Your task to perform on an android device: toggle notification dots Image 0: 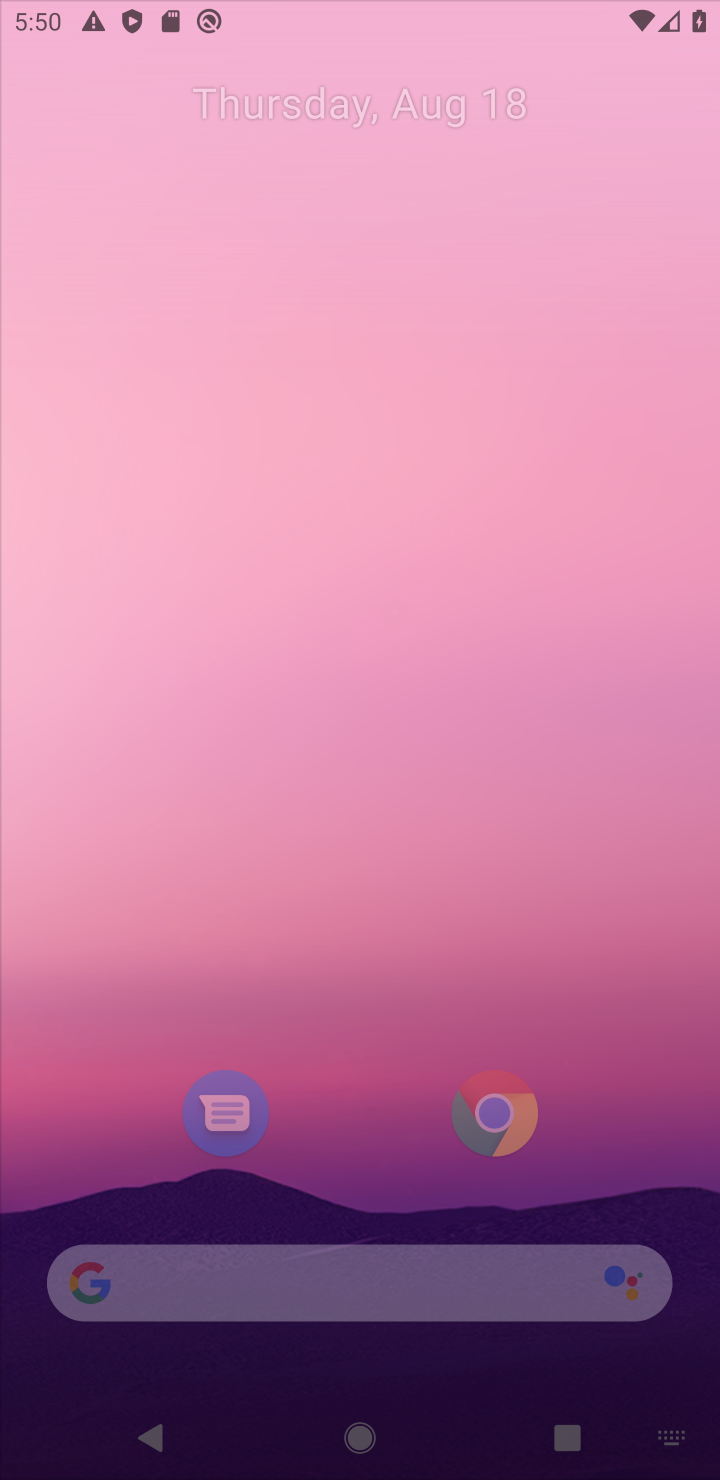
Step 0: press home button
Your task to perform on an android device: toggle notification dots Image 1: 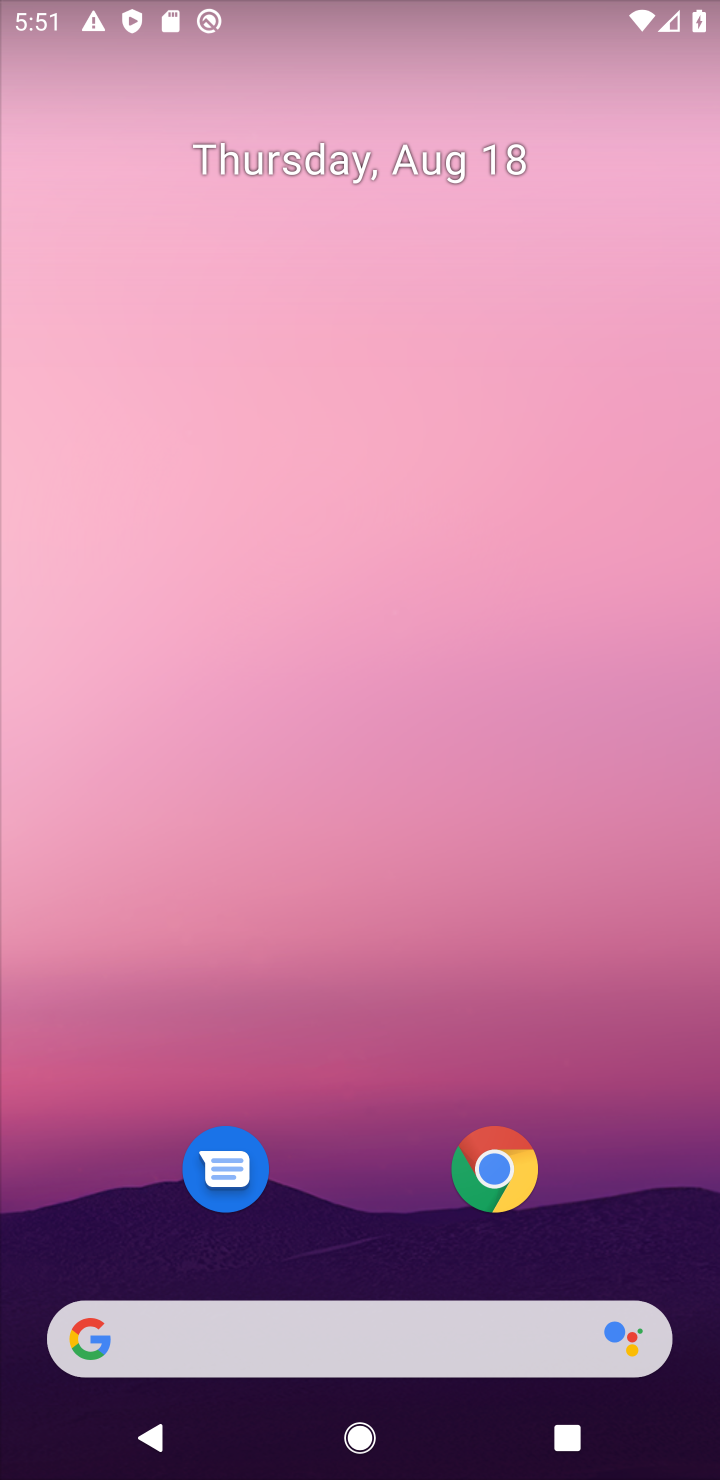
Step 1: drag from (360, 1264) to (343, 167)
Your task to perform on an android device: toggle notification dots Image 2: 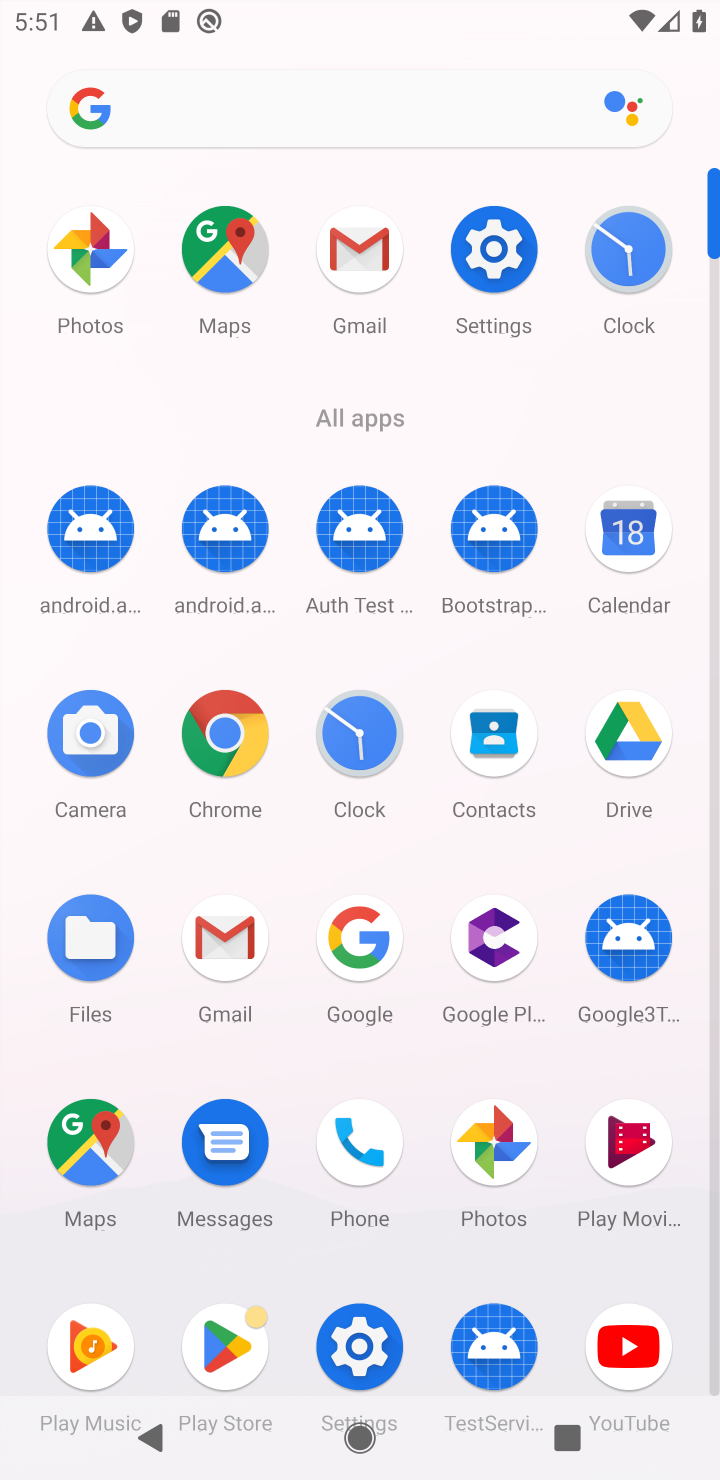
Step 2: click (494, 270)
Your task to perform on an android device: toggle notification dots Image 3: 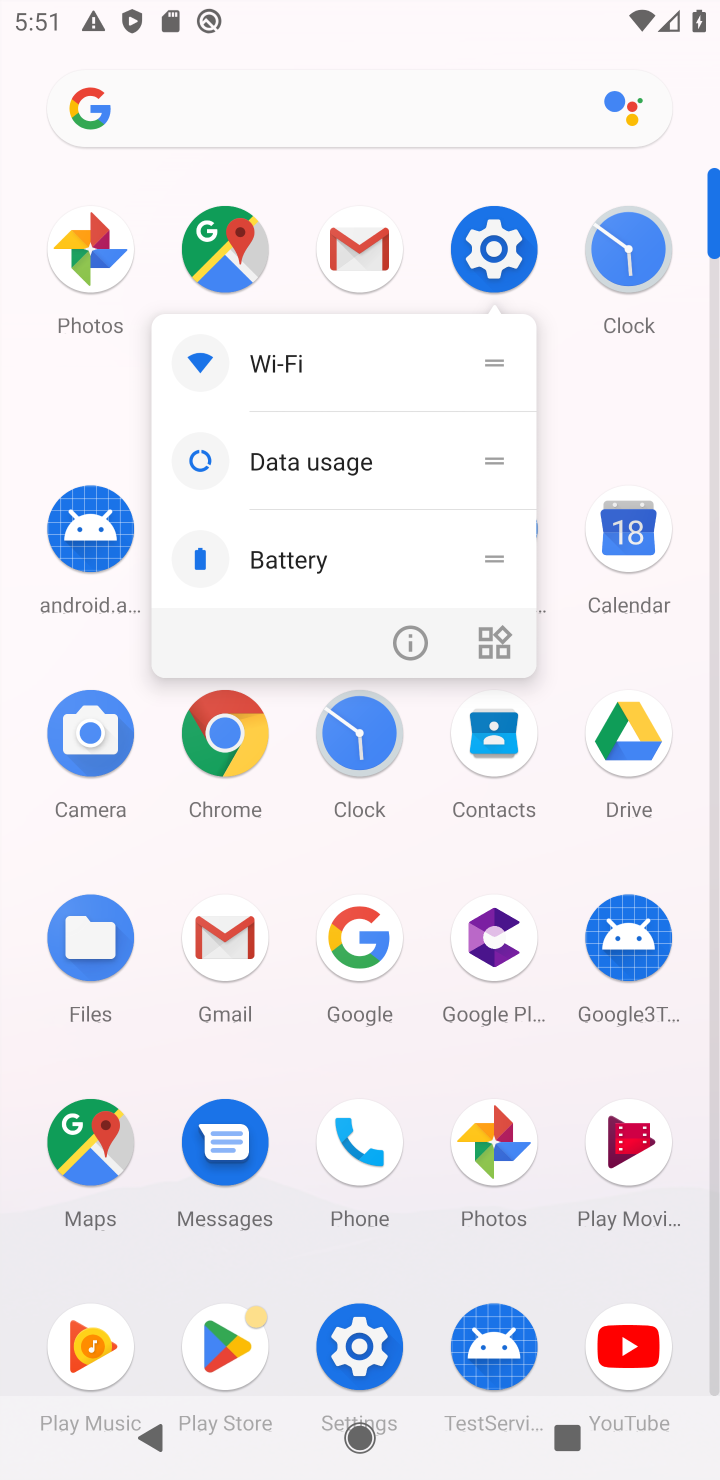
Step 3: click (494, 270)
Your task to perform on an android device: toggle notification dots Image 4: 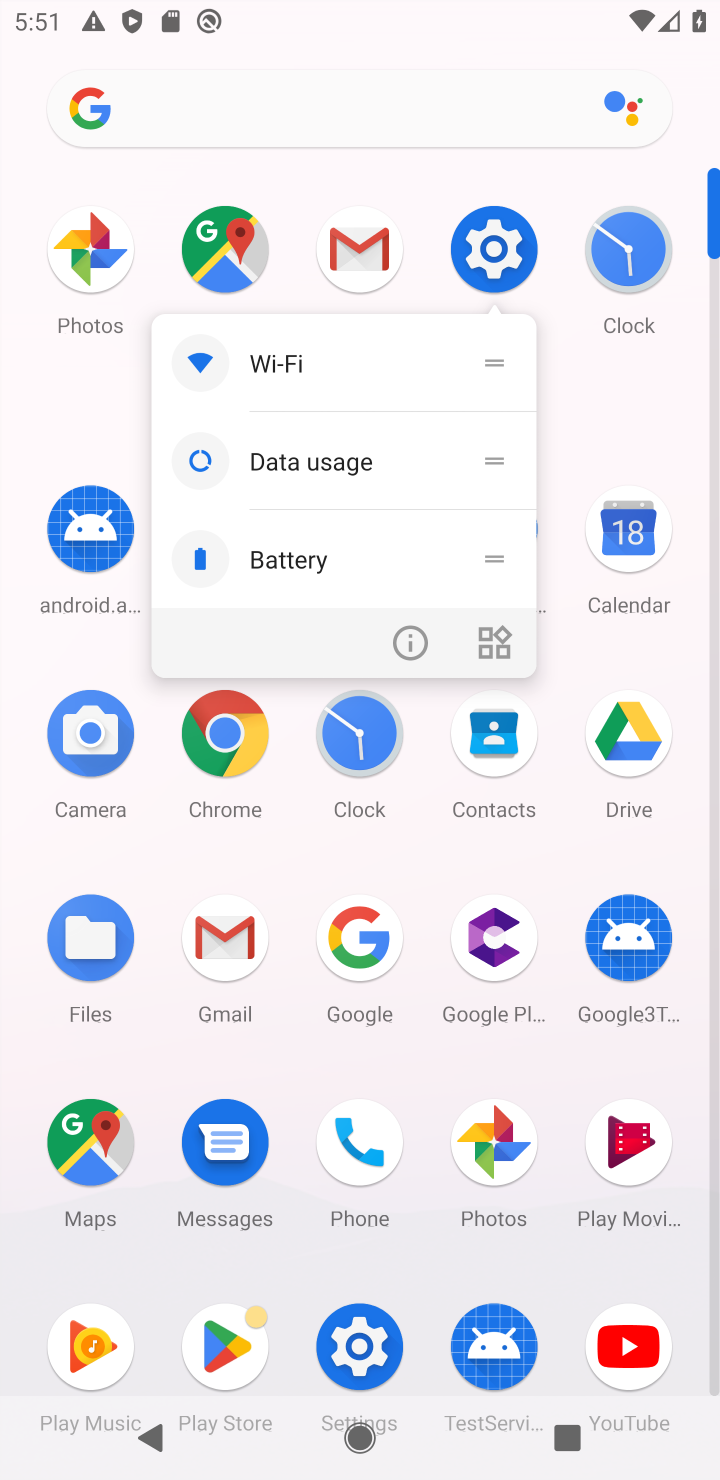
Step 4: click (494, 270)
Your task to perform on an android device: toggle notification dots Image 5: 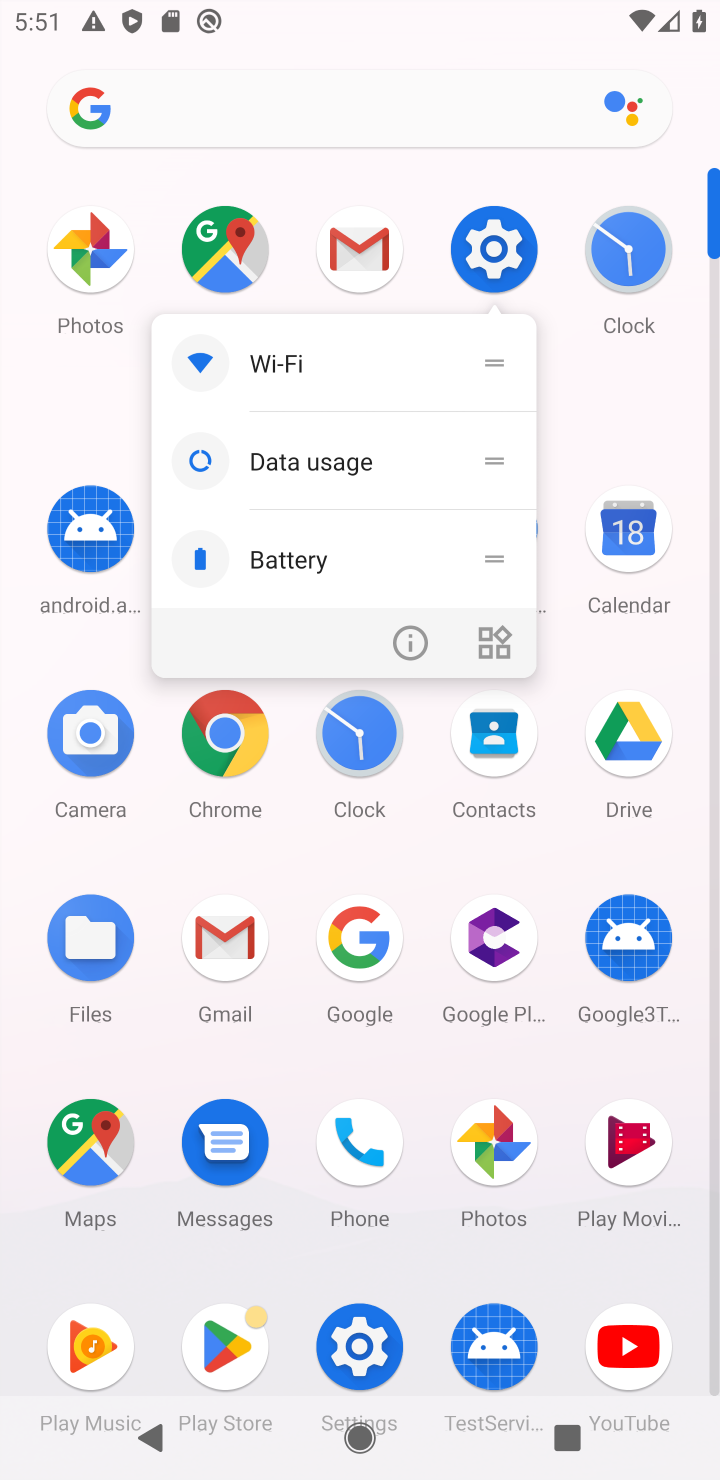
Step 5: click (494, 241)
Your task to perform on an android device: toggle notification dots Image 6: 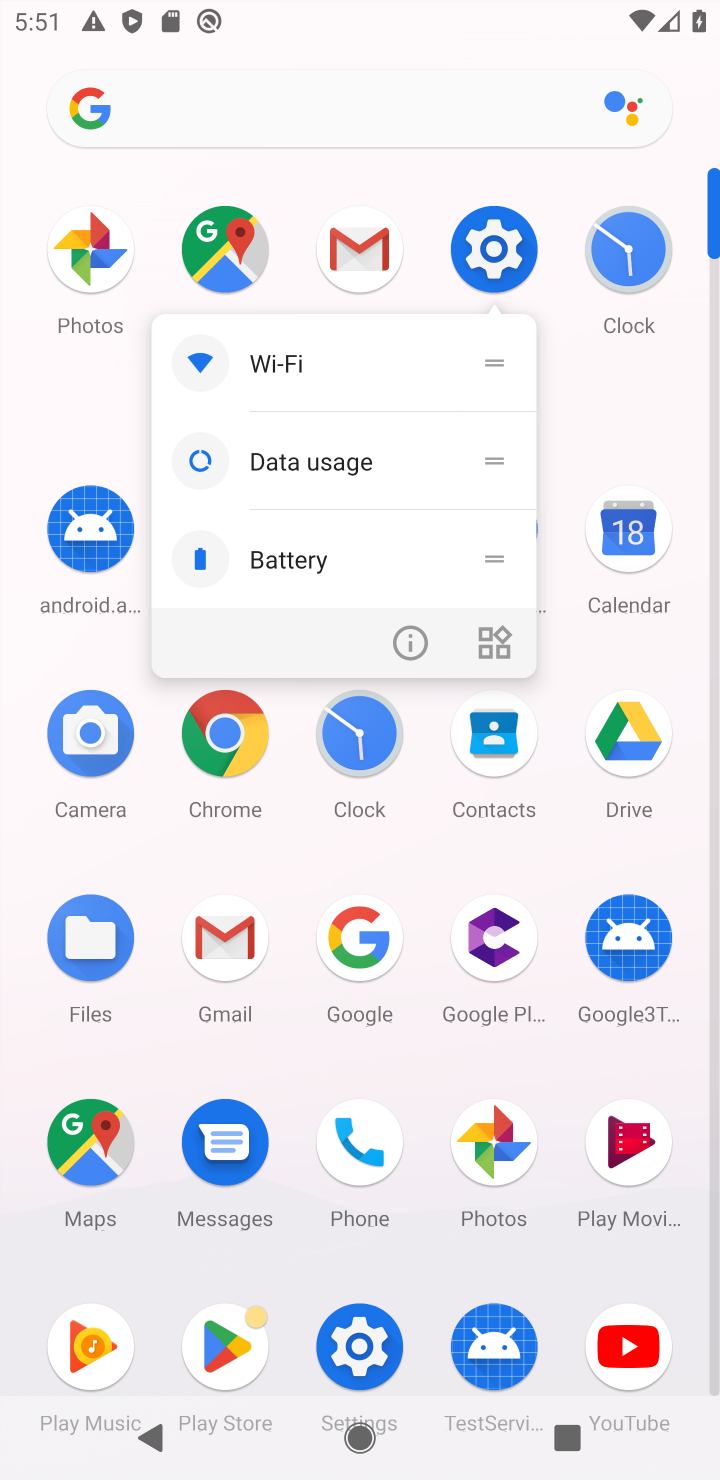
Step 6: click (494, 241)
Your task to perform on an android device: toggle notification dots Image 7: 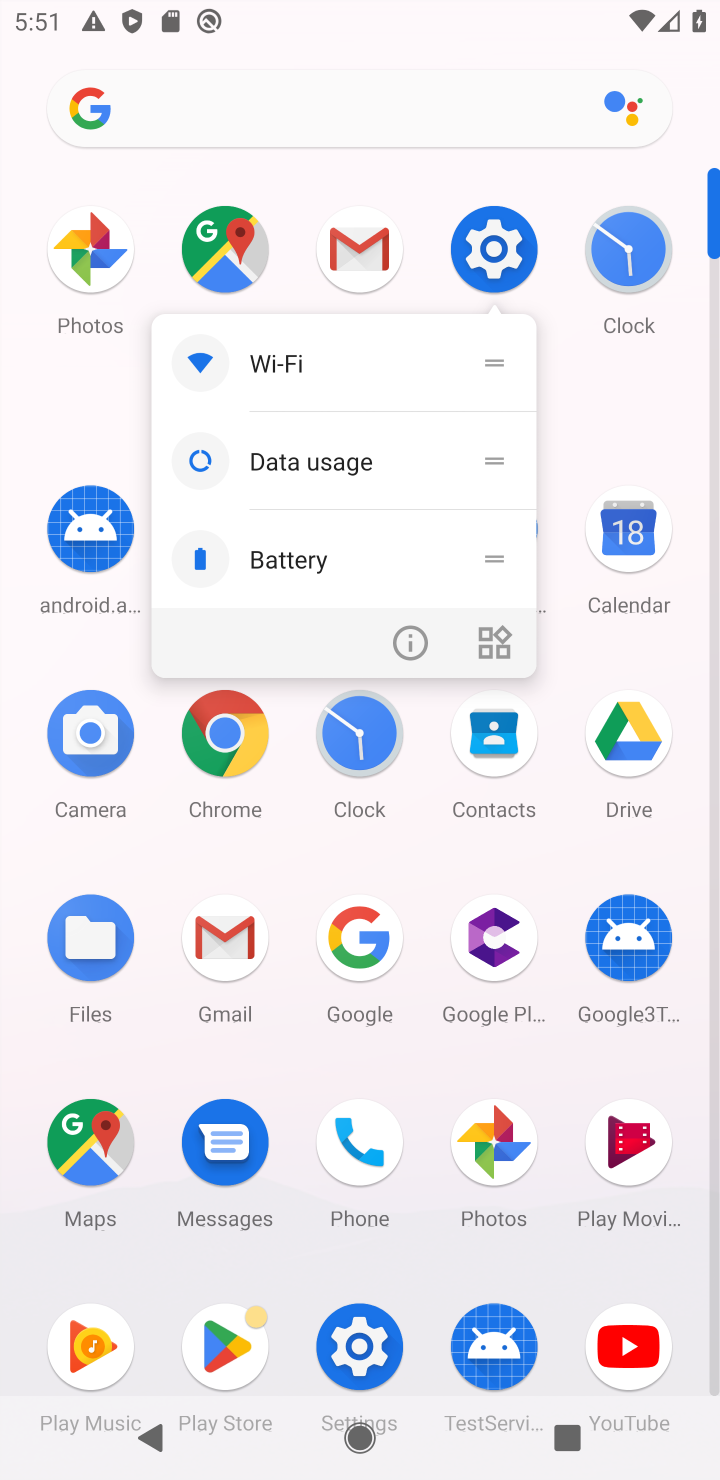
Step 7: click (499, 237)
Your task to perform on an android device: toggle notification dots Image 8: 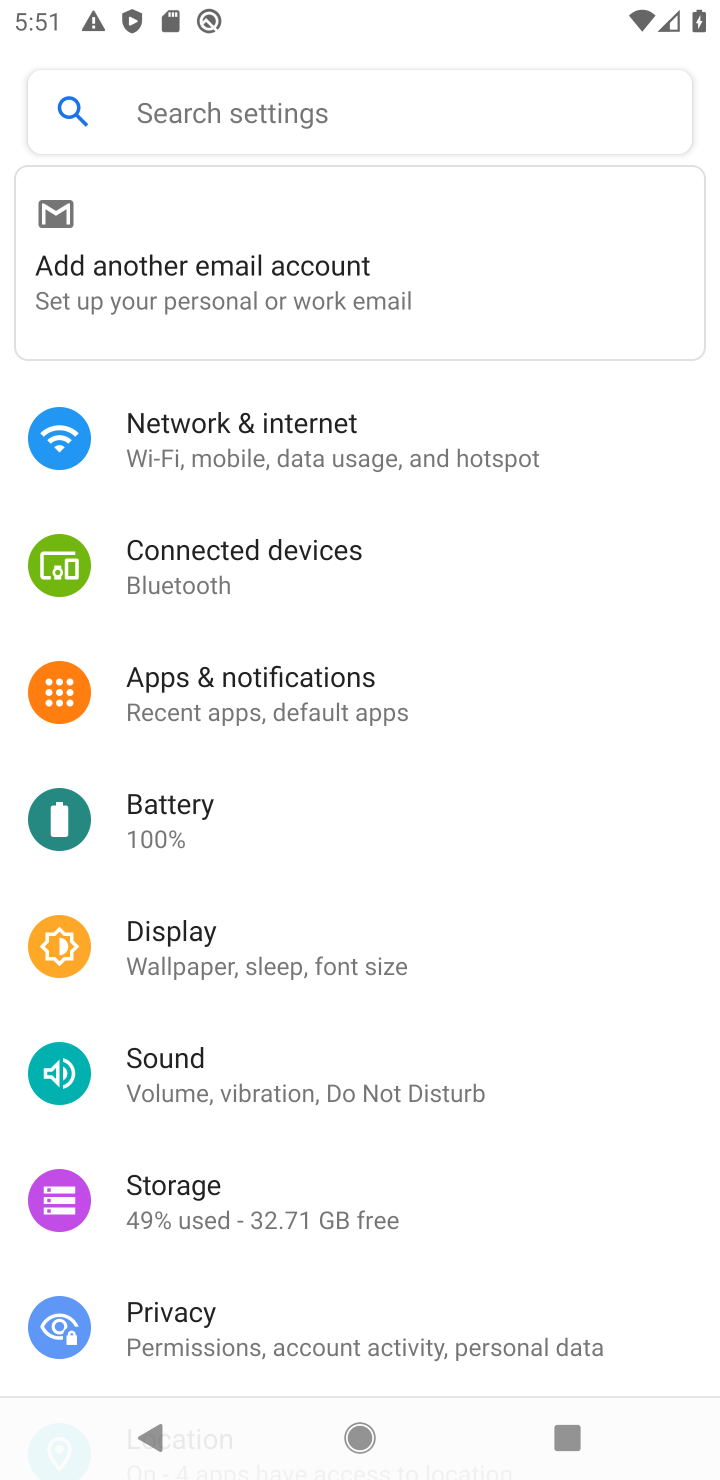
Step 8: click (270, 699)
Your task to perform on an android device: toggle notification dots Image 9: 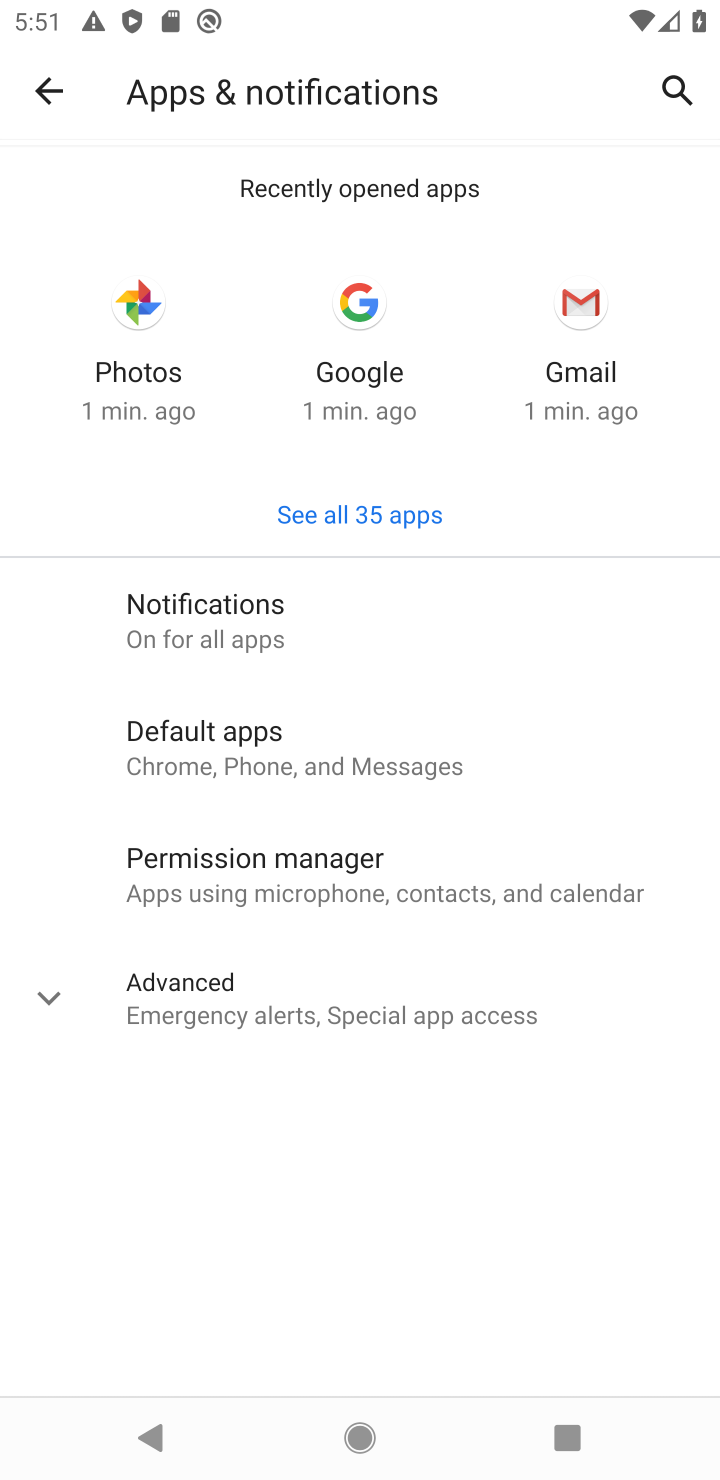
Step 9: click (199, 624)
Your task to perform on an android device: toggle notification dots Image 10: 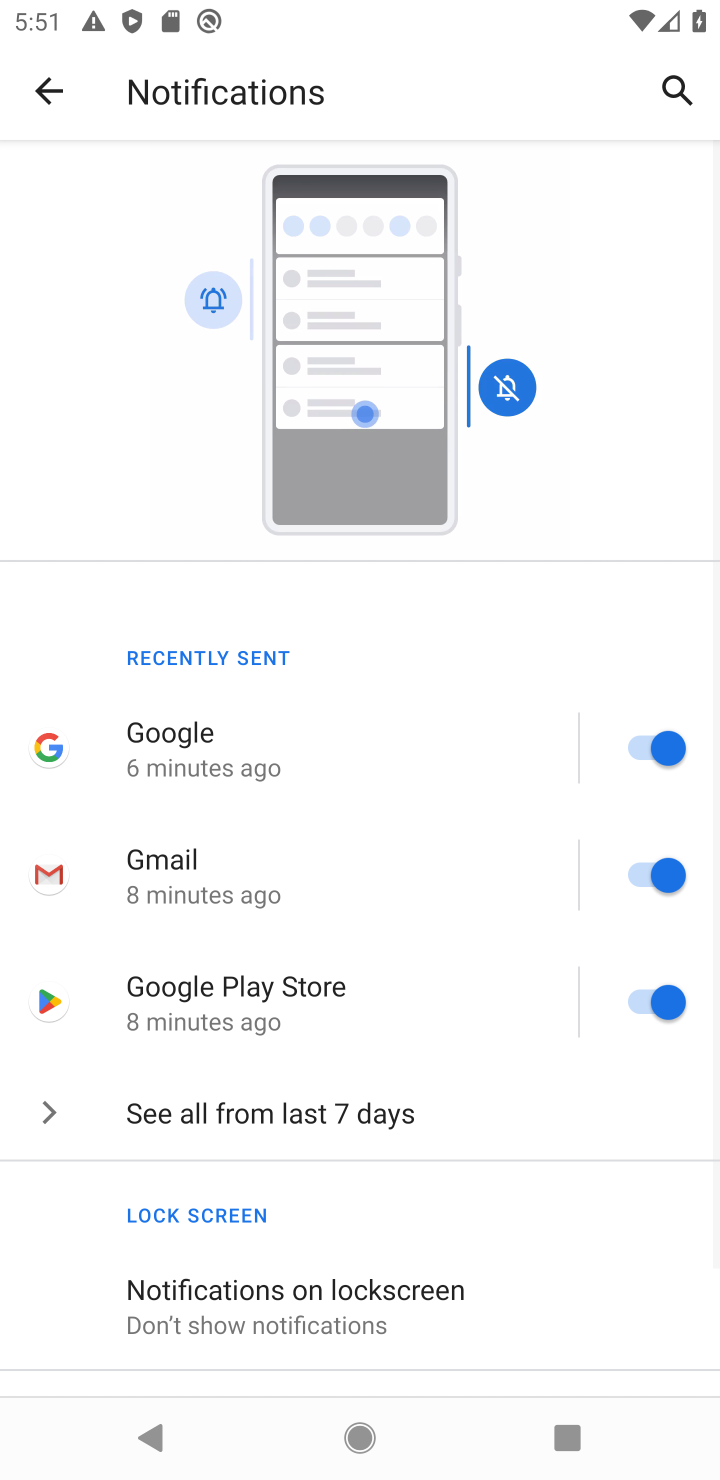
Step 10: drag from (625, 825) to (704, 26)
Your task to perform on an android device: toggle notification dots Image 11: 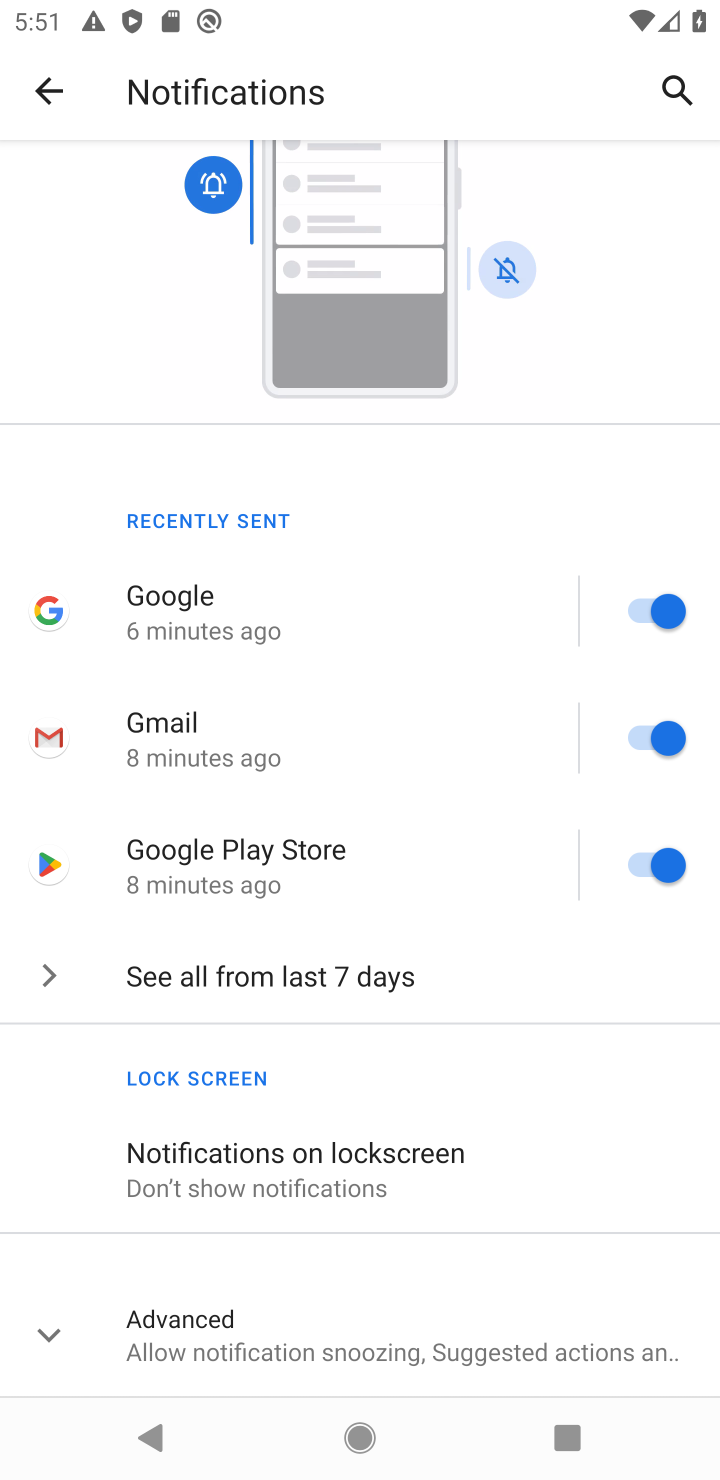
Step 11: click (205, 1325)
Your task to perform on an android device: toggle notification dots Image 12: 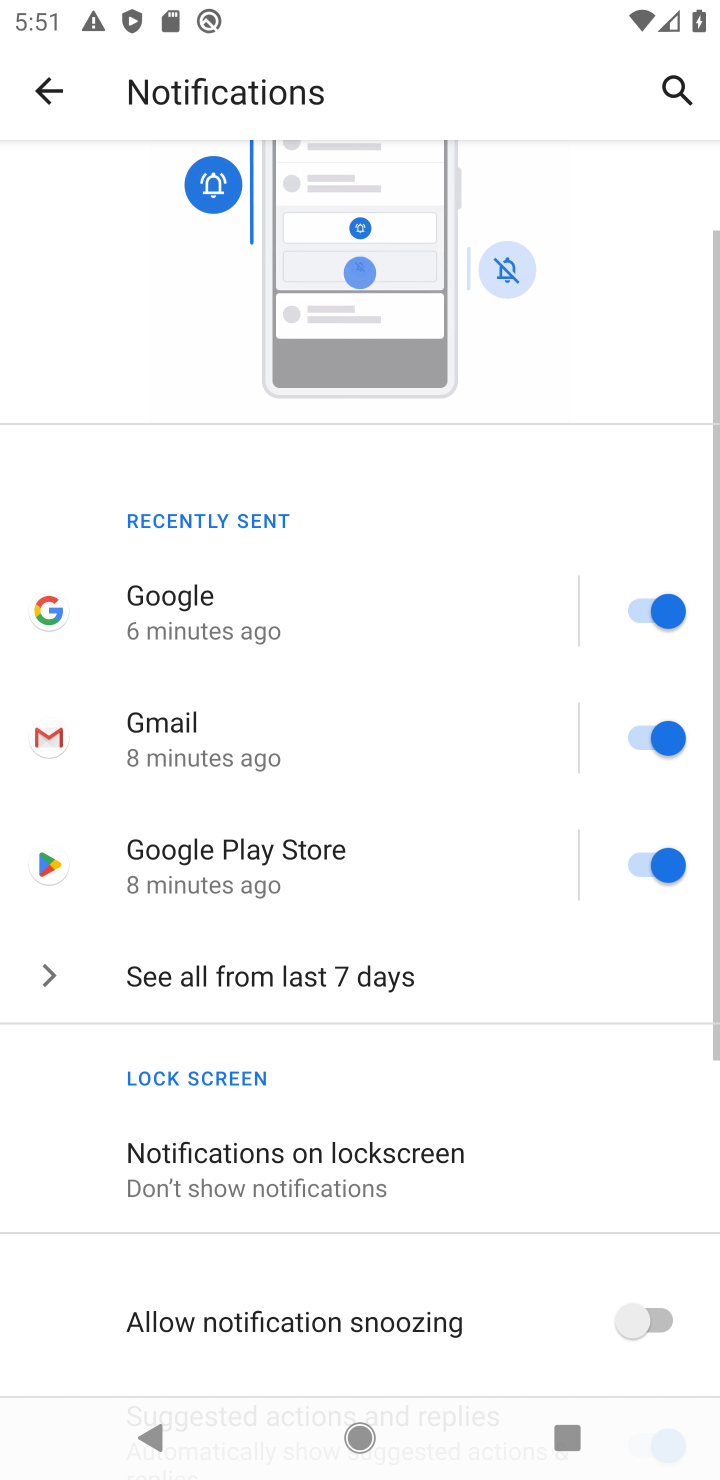
Step 12: drag from (444, 1214) to (524, 139)
Your task to perform on an android device: toggle notification dots Image 13: 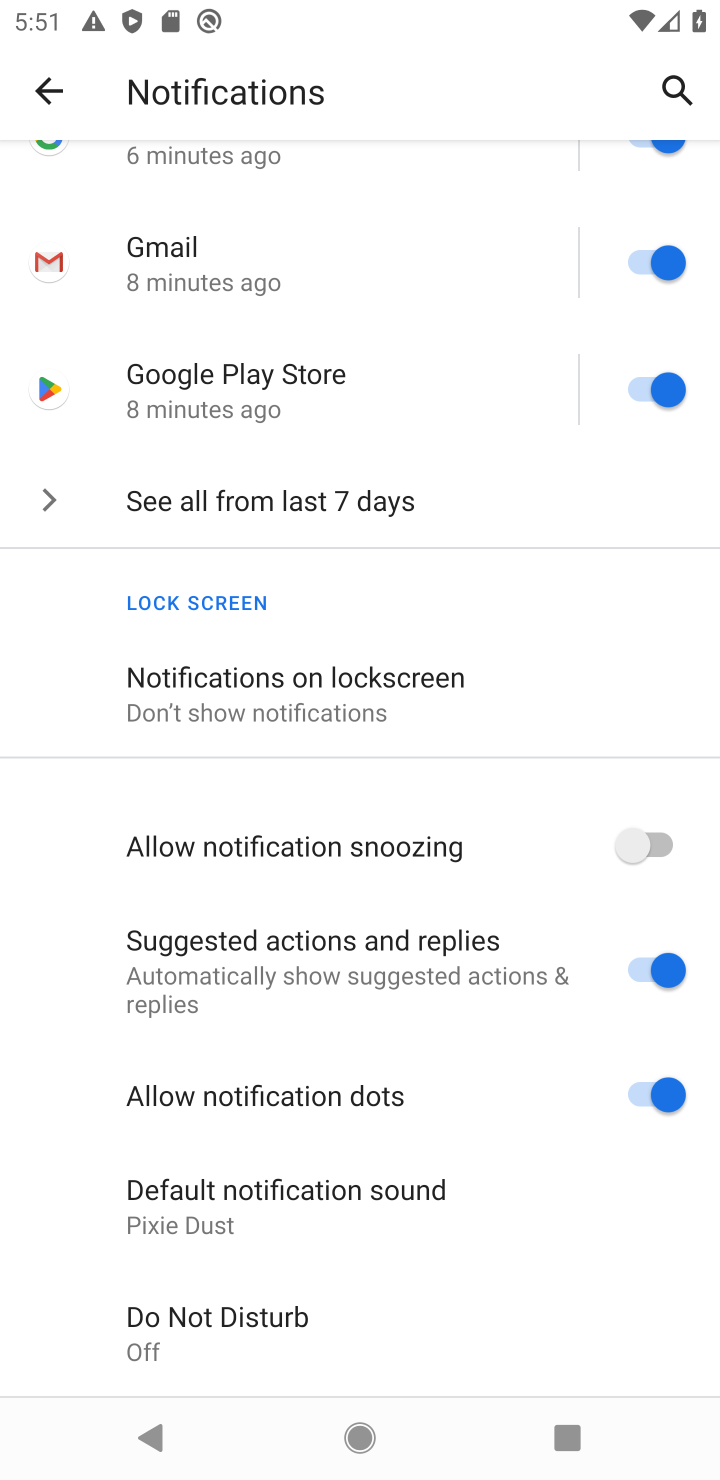
Step 13: click (662, 1093)
Your task to perform on an android device: toggle notification dots Image 14: 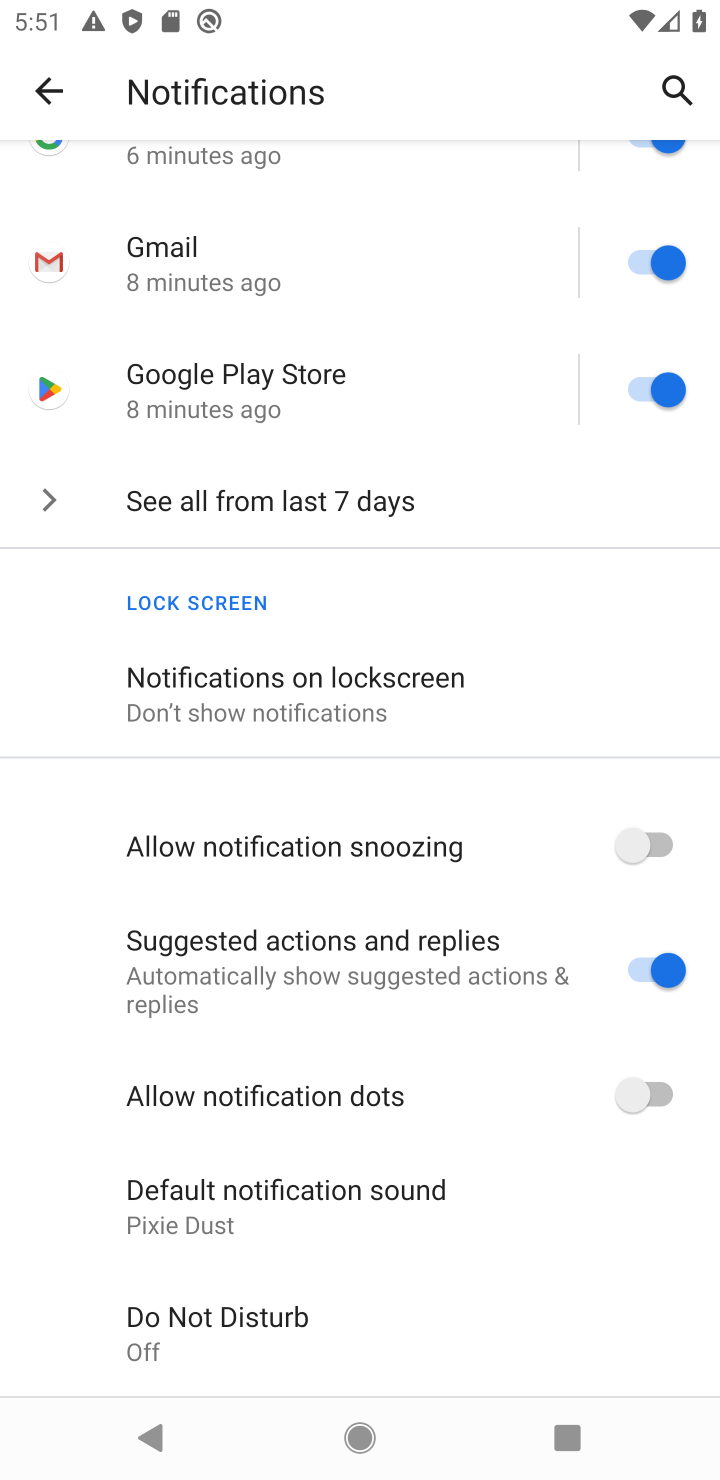
Step 14: task complete